Your task to perform on an android device: set default search engine in the chrome app Image 0: 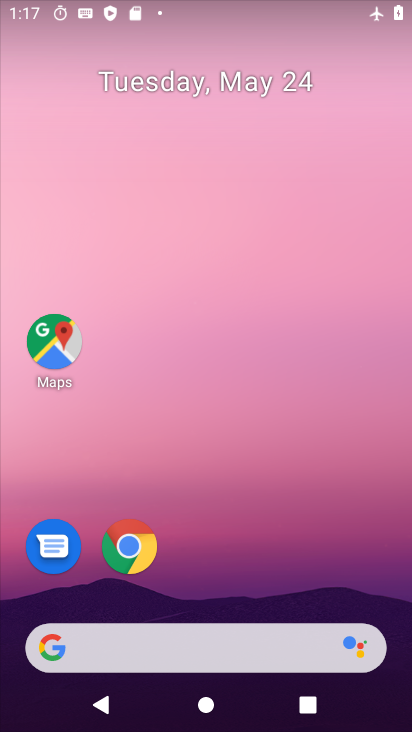
Step 0: drag from (169, 585) to (276, 90)
Your task to perform on an android device: set default search engine in the chrome app Image 1: 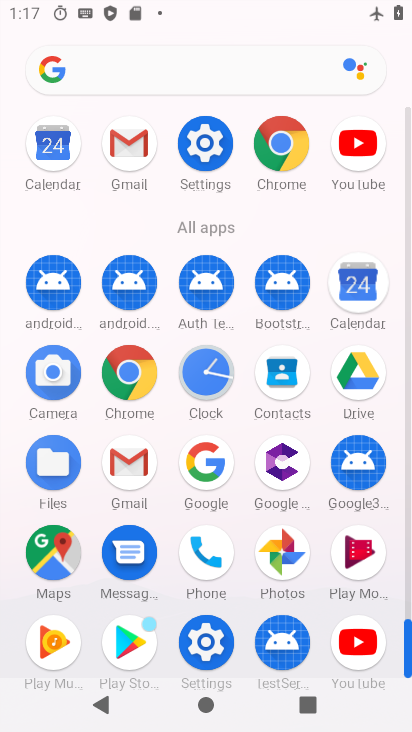
Step 1: click (132, 375)
Your task to perform on an android device: set default search engine in the chrome app Image 2: 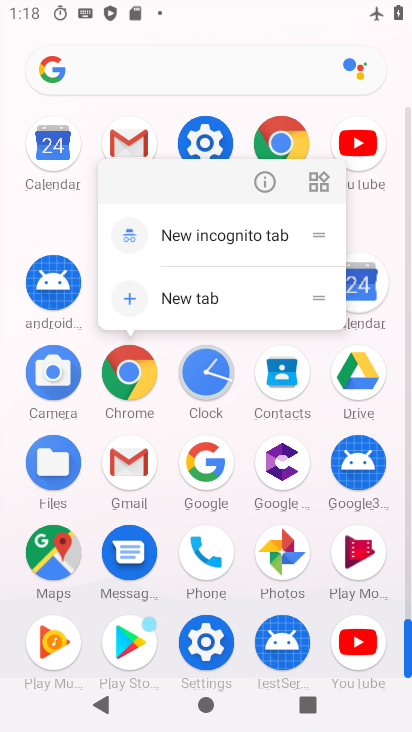
Step 2: click (255, 178)
Your task to perform on an android device: set default search engine in the chrome app Image 3: 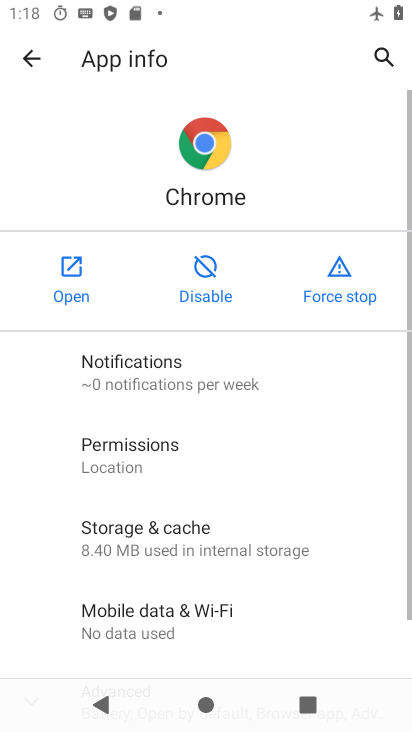
Step 3: click (82, 275)
Your task to perform on an android device: set default search engine in the chrome app Image 4: 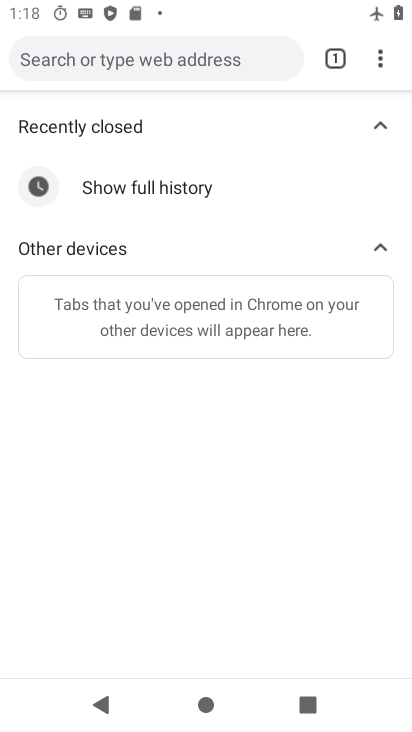
Step 4: click (381, 60)
Your task to perform on an android device: set default search engine in the chrome app Image 5: 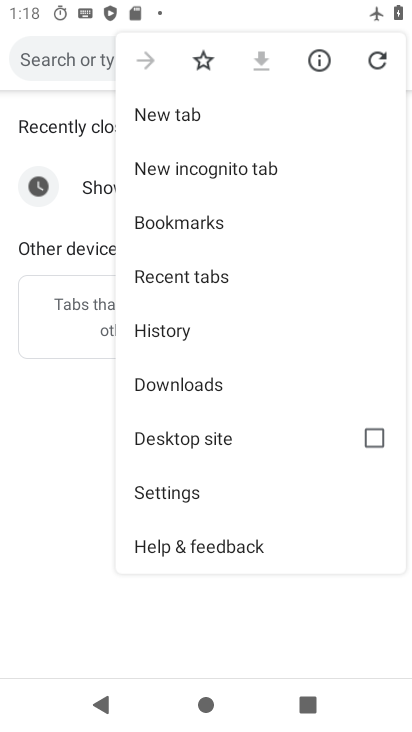
Step 5: click (189, 508)
Your task to perform on an android device: set default search engine in the chrome app Image 6: 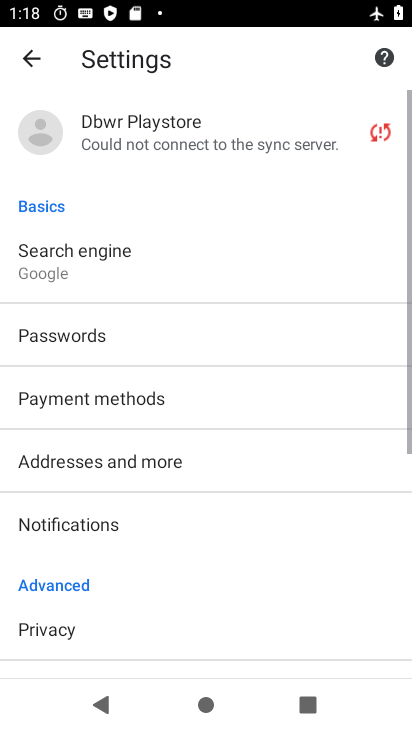
Step 6: drag from (167, 487) to (211, 161)
Your task to perform on an android device: set default search engine in the chrome app Image 7: 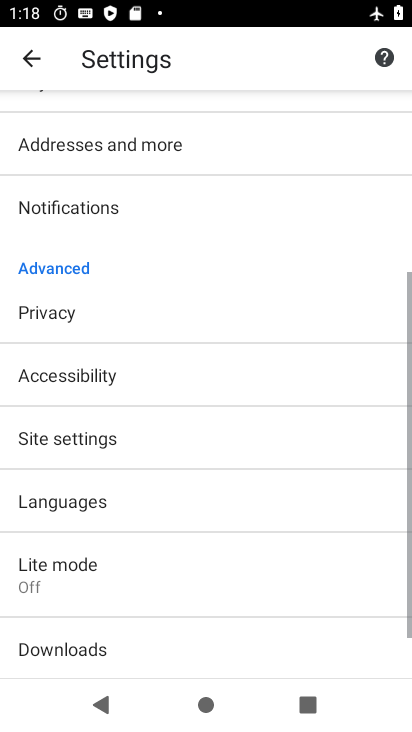
Step 7: drag from (208, 163) to (202, 640)
Your task to perform on an android device: set default search engine in the chrome app Image 8: 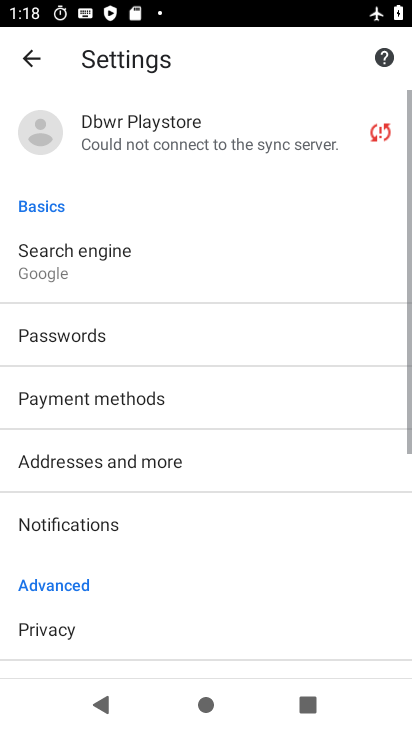
Step 8: click (106, 256)
Your task to perform on an android device: set default search engine in the chrome app Image 9: 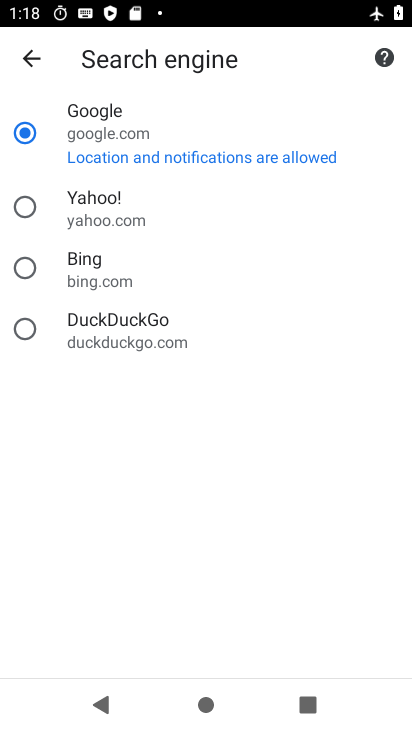
Step 9: click (75, 196)
Your task to perform on an android device: set default search engine in the chrome app Image 10: 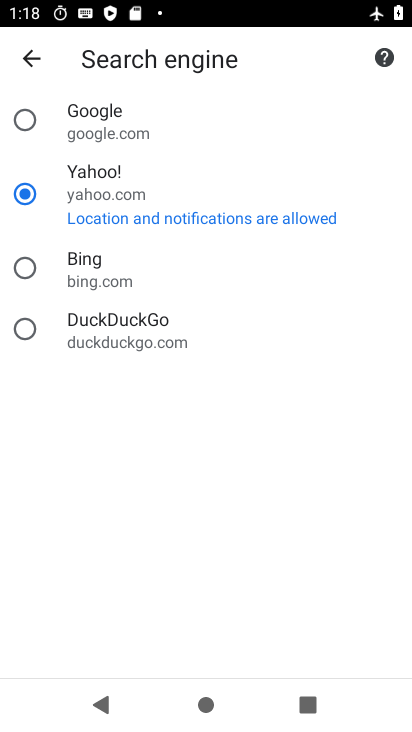
Step 10: task complete